Your task to perform on an android device: Search for Mexican restaurants on Maps Image 0: 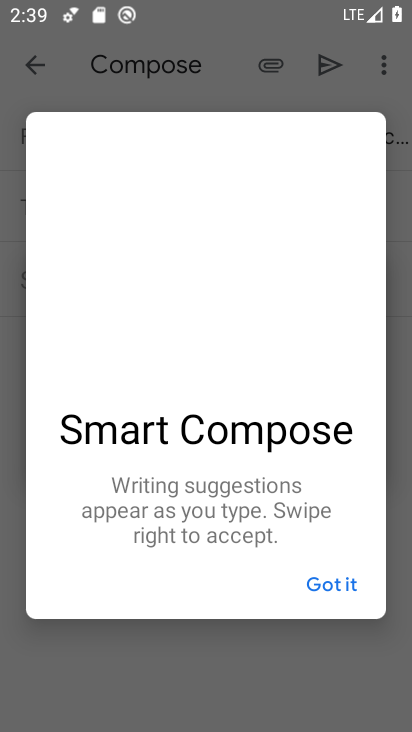
Step 0: press home button
Your task to perform on an android device: Search for Mexican restaurants on Maps Image 1: 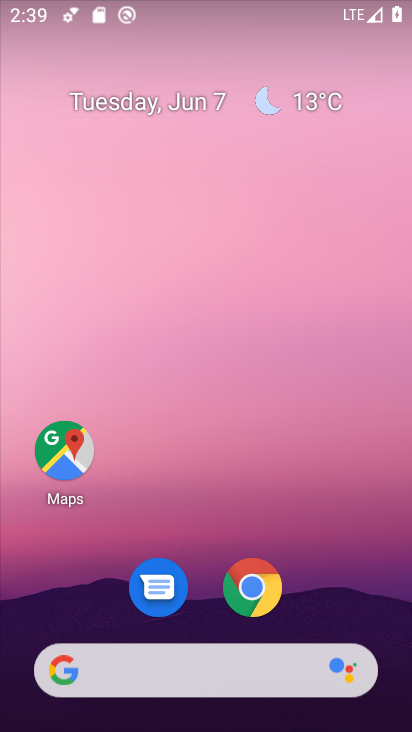
Step 1: drag from (244, 638) to (353, 1)
Your task to perform on an android device: Search for Mexican restaurants on Maps Image 2: 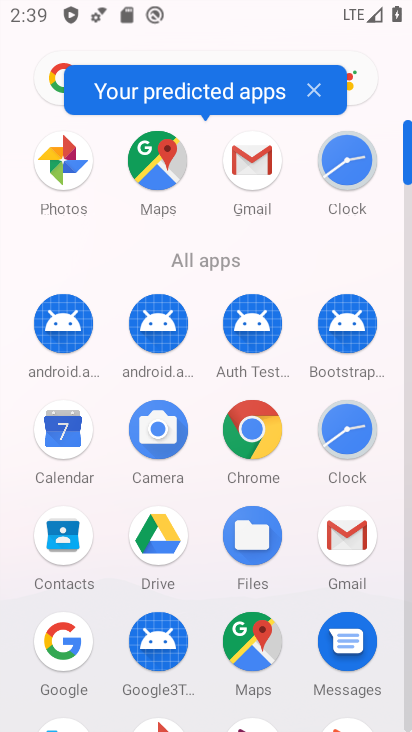
Step 2: click (241, 652)
Your task to perform on an android device: Search for Mexican restaurants on Maps Image 3: 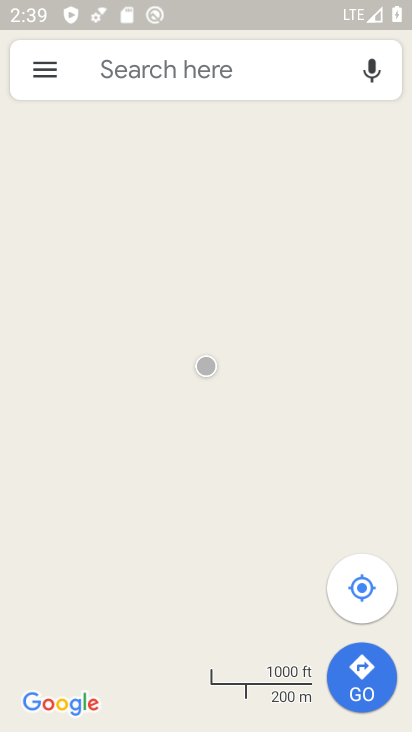
Step 3: click (267, 77)
Your task to perform on an android device: Search for Mexican restaurants on Maps Image 4: 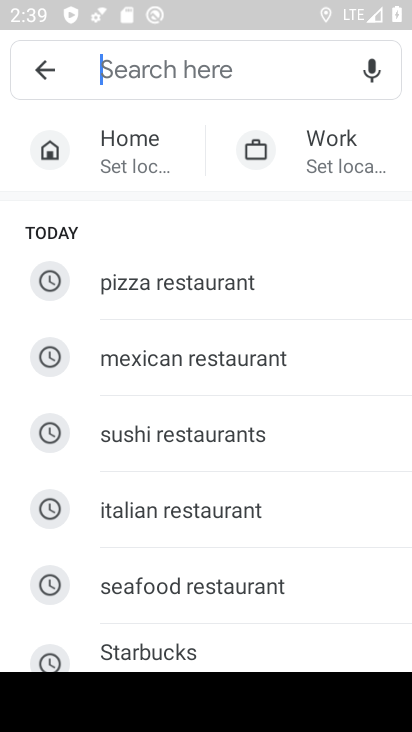
Step 4: click (164, 360)
Your task to perform on an android device: Search for Mexican restaurants on Maps Image 5: 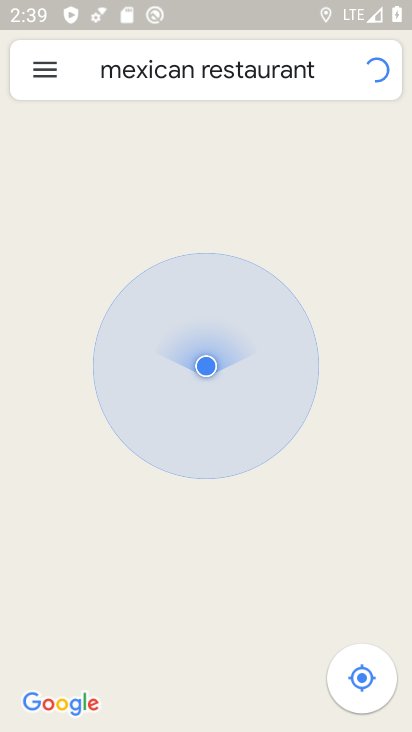
Step 5: task complete